Your task to perform on an android device: turn on bluetooth scan Image 0: 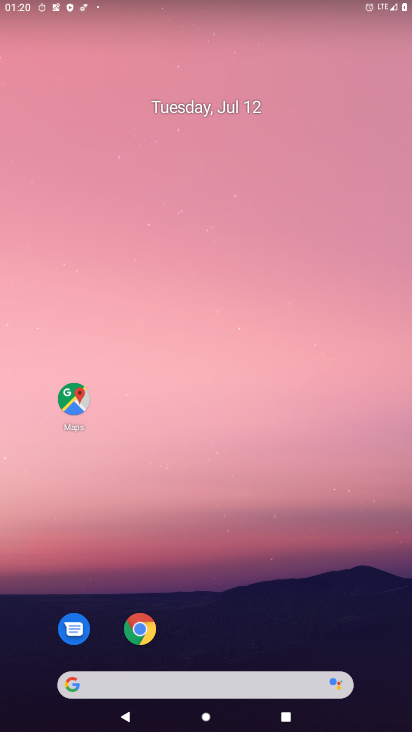
Step 0: drag from (34, 712) to (223, 109)
Your task to perform on an android device: turn on bluetooth scan Image 1: 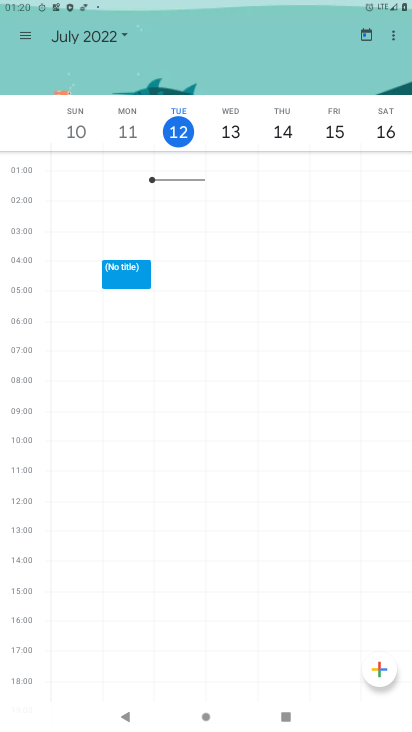
Step 1: press home button
Your task to perform on an android device: turn on bluetooth scan Image 2: 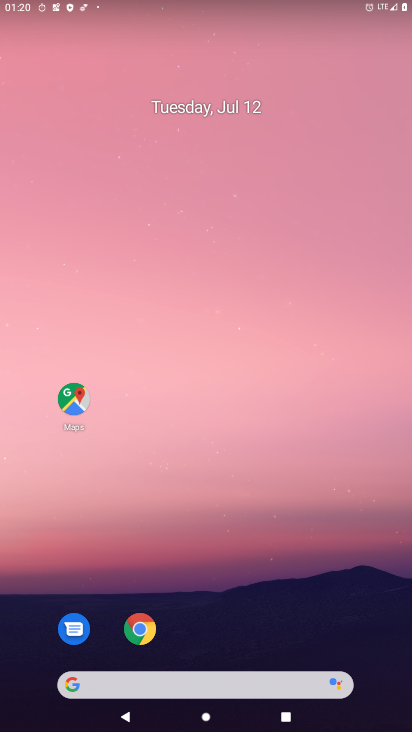
Step 2: drag from (94, 472) to (202, 100)
Your task to perform on an android device: turn on bluetooth scan Image 3: 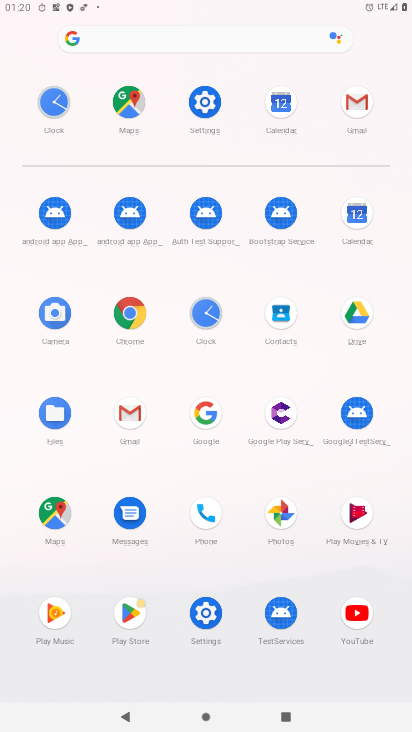
Step 3: click (216, 605)
Your task to perform on an android device: turn on bluetooth scan Image 4: 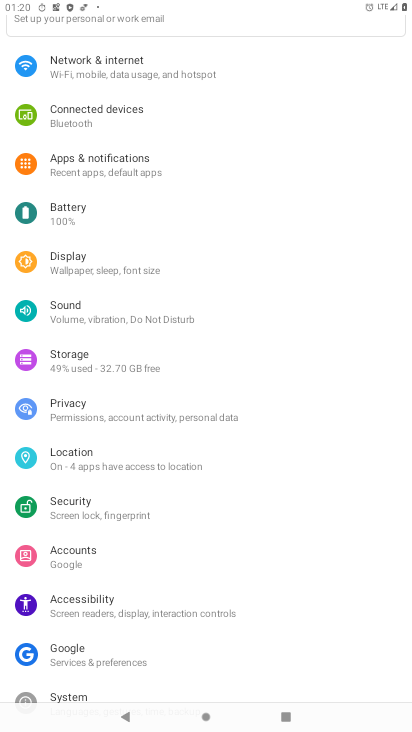
Step 4: click (115, 112)
Your task to perform on an android device: turn on bluetooth scan Image 5: 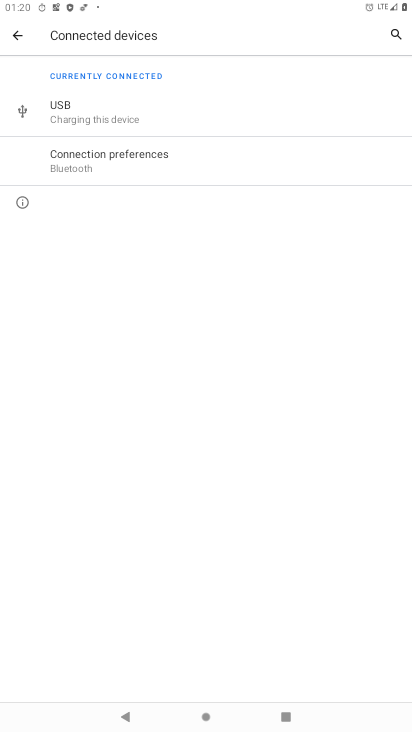
Step 5: click (111, 165)
Your task to perform on an android device: turn on bluetooth scan Image 6: 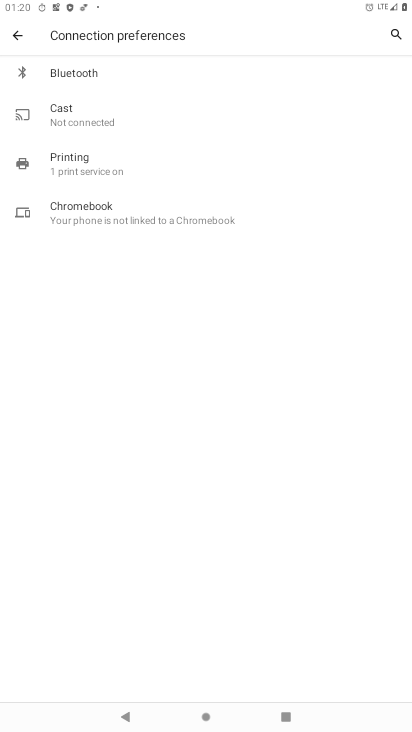
Step 6: click (109, 68)
Your task to perform on an android device: turn on bluetooth scan Image 7: 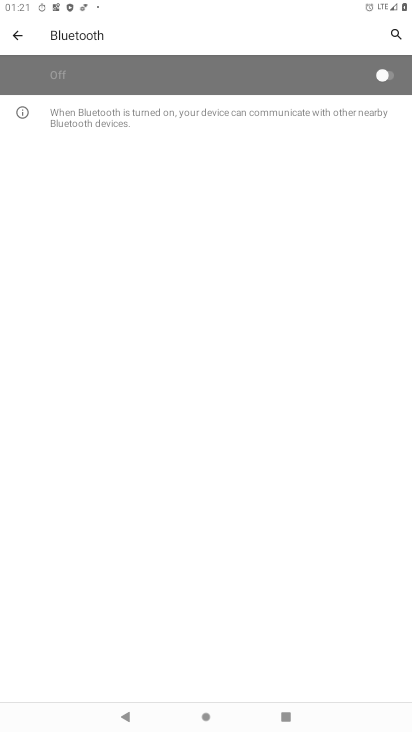
Step 7: task complete